Your task to perform on an android device: Open CNN.com Image 0: 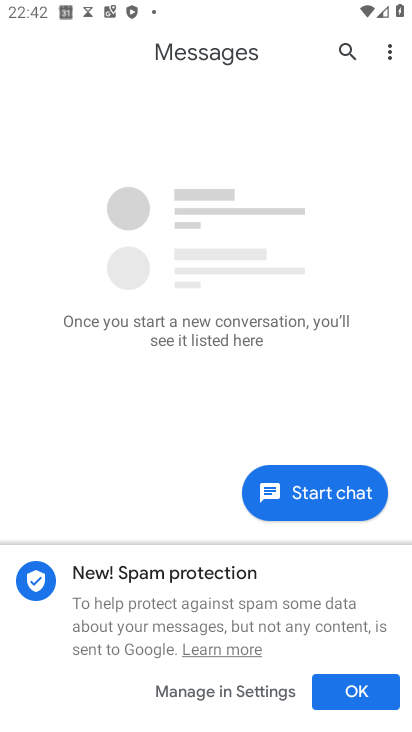
Step 0: press home button
Your task to perform on an android device: Open CNN.com Image 1: 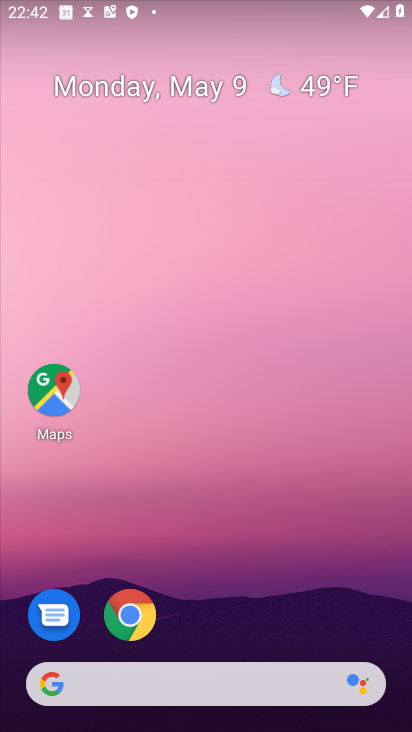
Step 1: click (127, 616)
Your task to perform on an android device: Open CNN.com Image 2: 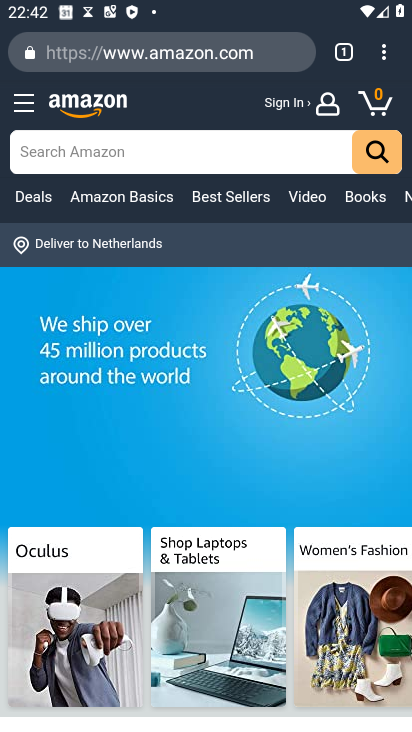
Step 2: click (180, 62)
Your task to perform on an android device: Open CNN.com Image 3: 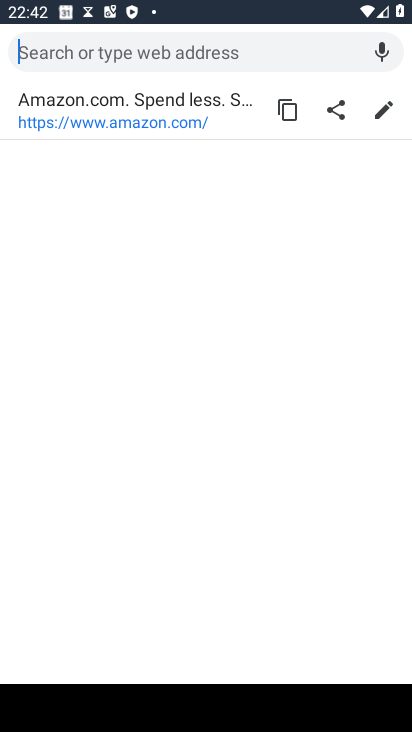
Step 3: type "CNN.com"
Your task to perform on an android device: Open CNN.com Image 4: 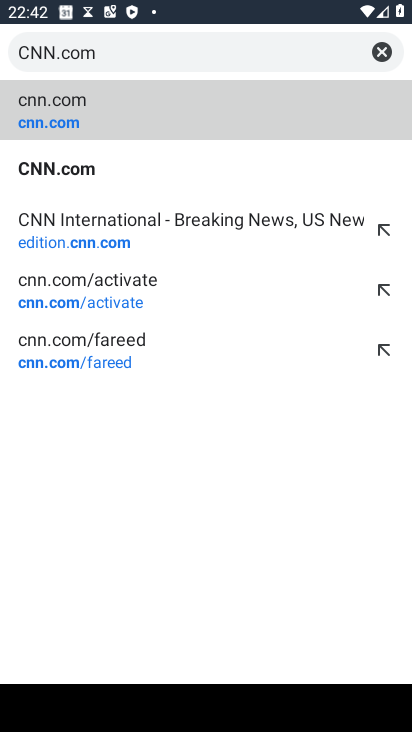
Step 4: click (82, 108)
Your task to perform on an android device: Open CNN.com Image 5: 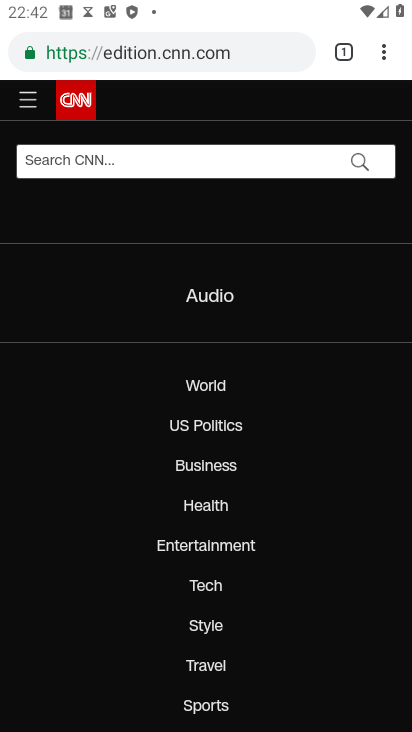
Step 5: task complete